Your task to perform on an android device: refresh tabs in the chrome app Image 0: 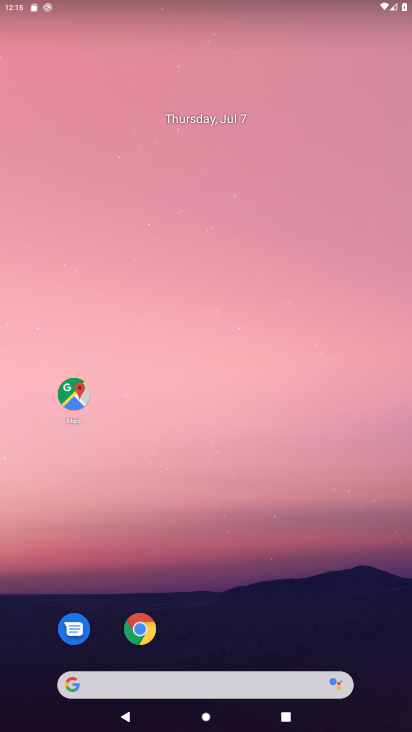
Step 0: drag from (242, 631) to (166, 259)
Your task to perform on an android device: refresh tabs in the chrome app Image 1: 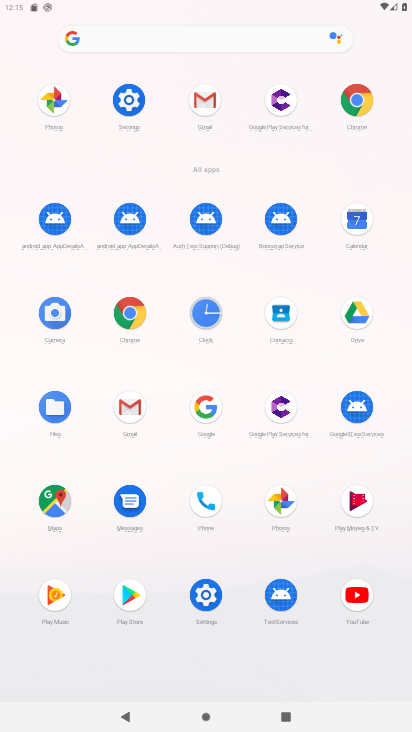
Step 1: click (356, 109)
Your task to perform on an android device: refresh tabs in the chrome app Image 2: 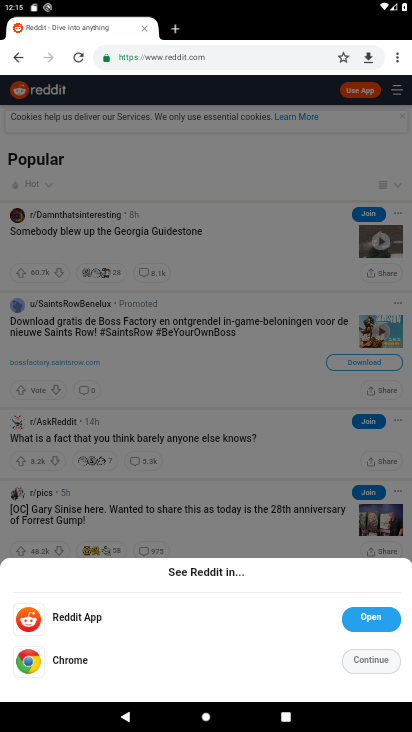
Step 2: click (75, 61)
Your task to perform on an android device: refresh tabs in the chrome app Image 3: 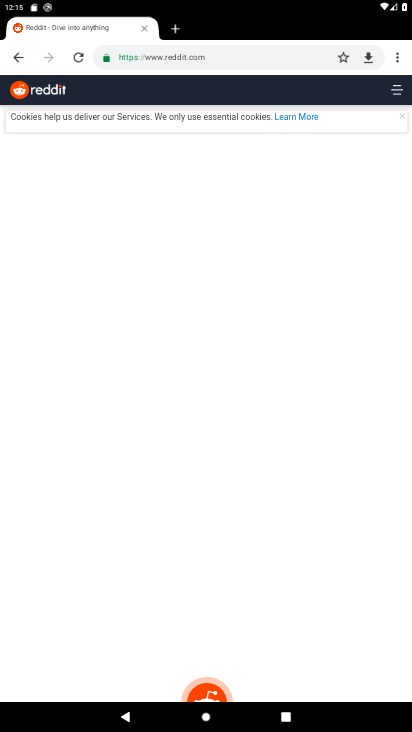
Step 3: task complete